Your task to perform on an android device: Go to Yahoo.com Image 0: 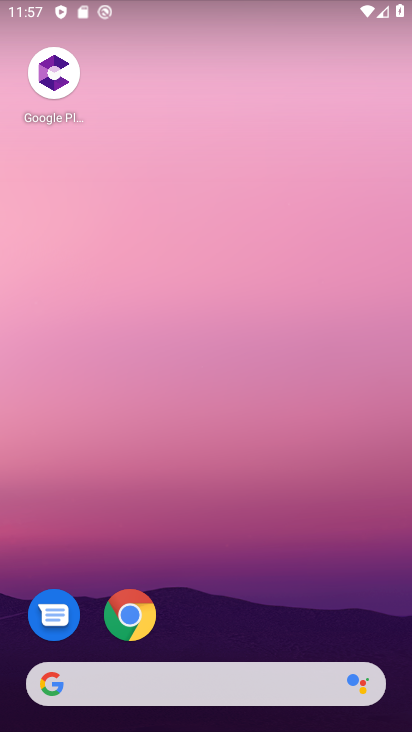
Step 0: drag from (374, 624) to (370, 79)
Your task to perform on an android device: Go to Yahoo.com Image 1: 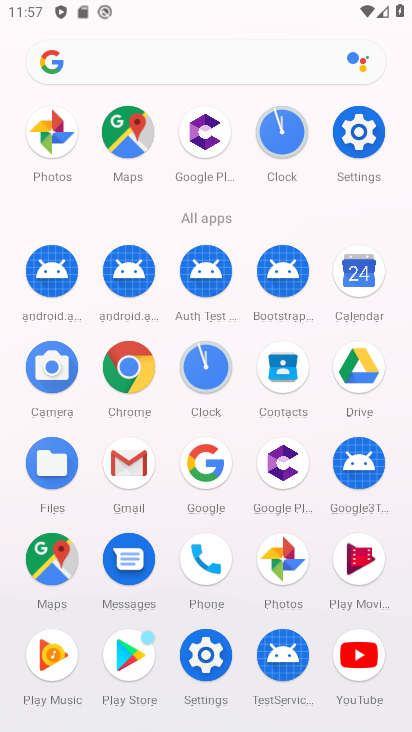
Step 1: click (123, 358)
Your task to perform on an android device: Go to Yahoo.com Image 2: 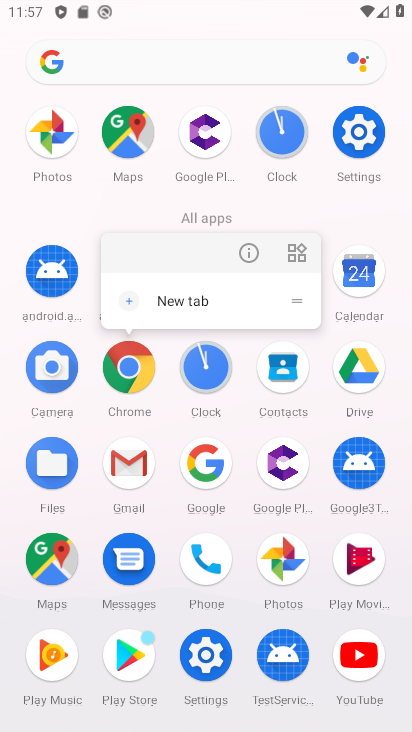
Step 2: click (117, 359)
Your task to perform on an android device: Go to Yahoo.com Image 3: 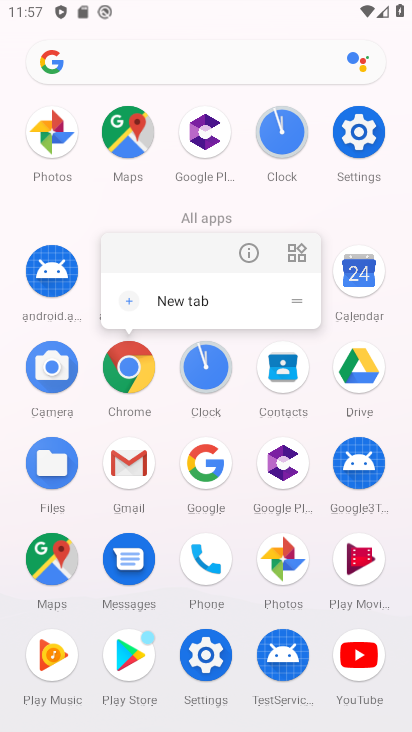
Step 3: click (115, 359)
Your task to perform on an android device: Go to Yahoo.com Image 4: 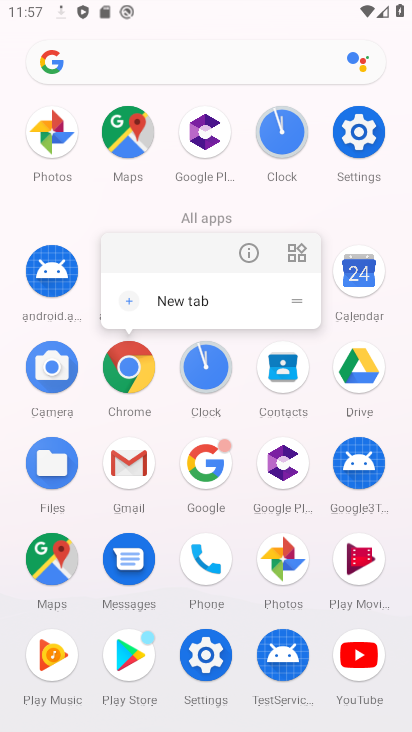
Step 4: click (128, 376)
Your task to perform on an android device: Go to Yahoo.com Image 5: 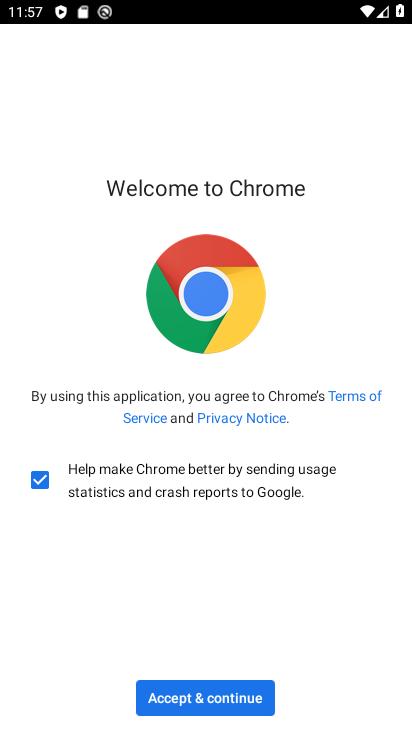
Step 5: click (185, 703)
Your task to perform on an android device: Go to Yahoo.com Image 6: 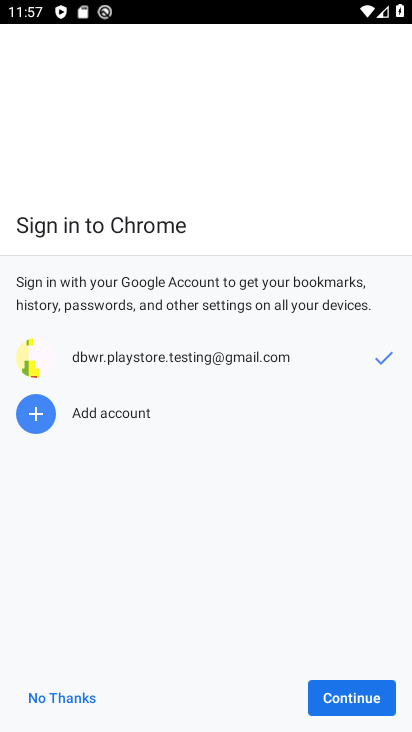
Step 6: click (339, 699)
Your task to perform on an android device: Go to Yahoo.com Image 7: 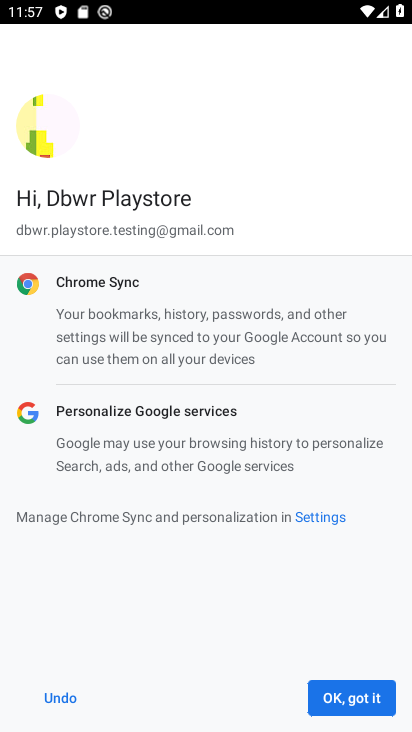
Step 7: click (339, 699)
Your task to perform on an android device: Go to Yahoo.com Image 8: 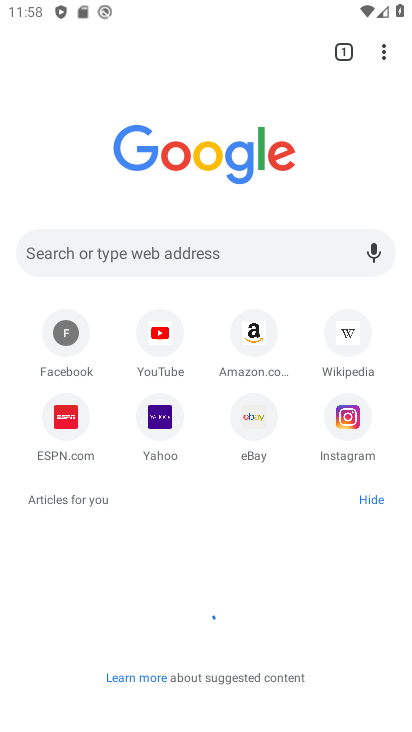
Step 8: click (165, 421)
Your task to perform on an android device: Go to Yahoo.com Image 9: 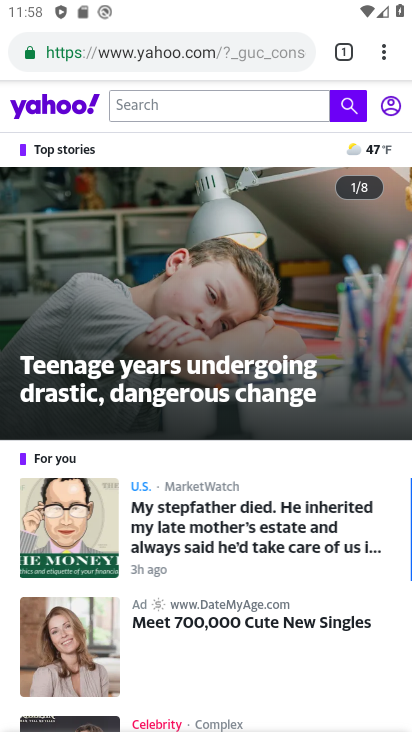
Step 9: task complete